Your task to perform on an android device: visit the assistant section in the google photos Image 0: 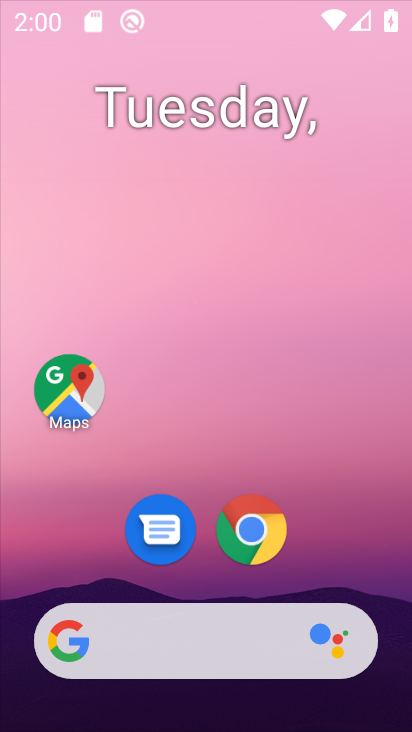
Step 0: click (253, 108)
Your task to perform on an android device: visit the assistant section in the google photos Image 1: 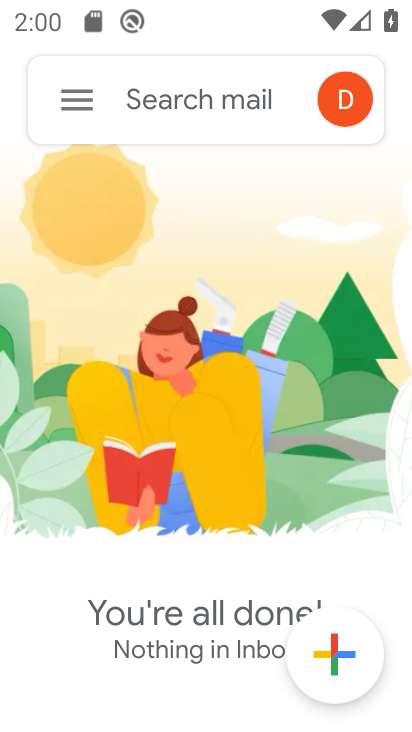
Step 1: press home button
Your task to perform on an android device: visit the assistant section in the google photos Image 2: 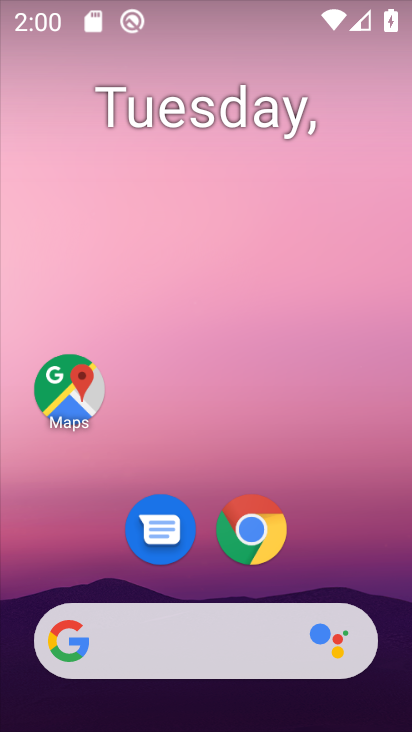
Step 2: drag from (385, 616) to (187, 112)
Your task to perform on an android device: visit the assistant section in the google photos Image 3: 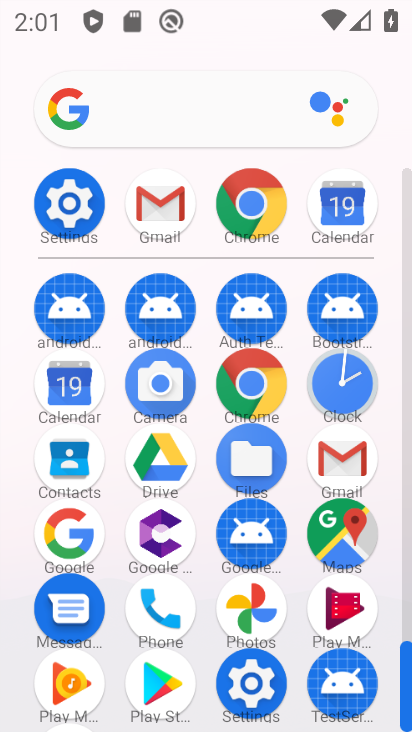
Step 3: click (252, 594)
Your task to perform on an android device: visit the assistant section in the google photos Image 4: 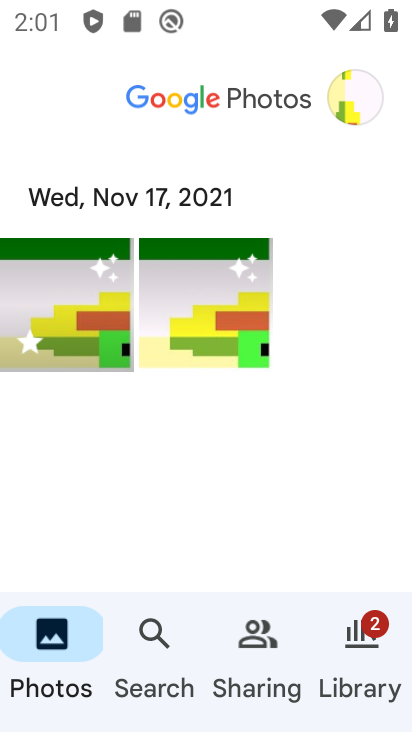
Step 4: click (367, 93)
Your task to perform on an android device: visit the assistant section in the google photos Image 5: 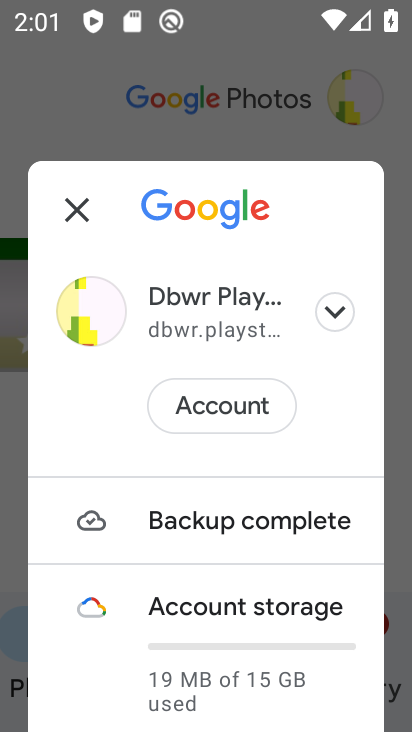
Step 5: task complete